Your task to perform on an android device: turn on improve location accuracy Image 0: 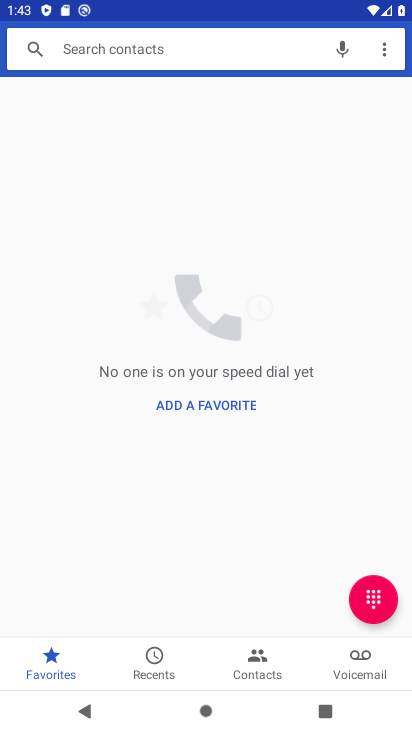
Step 0: press home button
Your task to perform on an android device: turn on improve location accuracy Image 1: 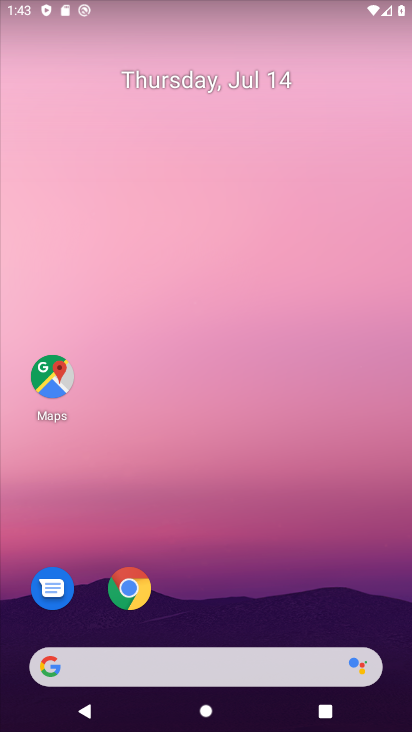
Step 1: drag from (221, 554) to (265, 147)
Your task to perform on an android device: turn on improve location accuracy Image 2: 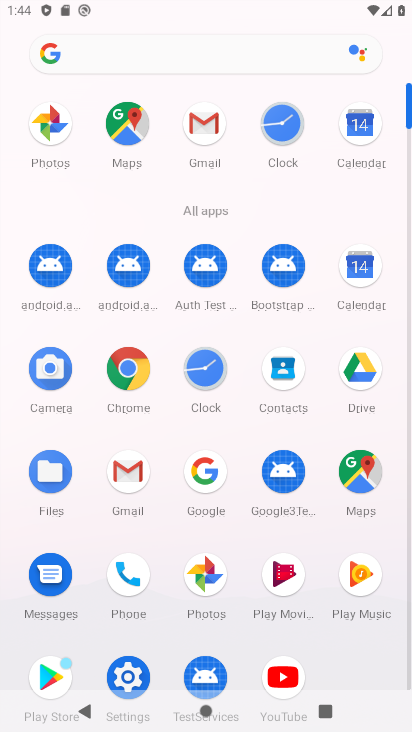
Step 2: click (132, 664)
Your task to perform on an android device: turn on improve location accuracy Image 3: 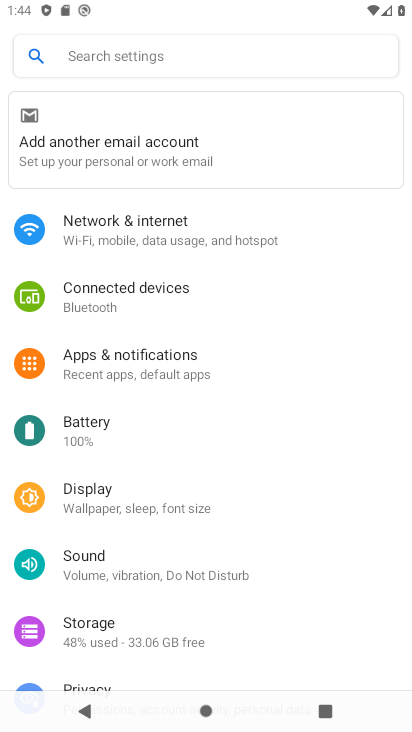
Step 3: drag from (147, 631) to (146, 390)
Your task to perform on an android device: turn on improve location accuracy Image 4: 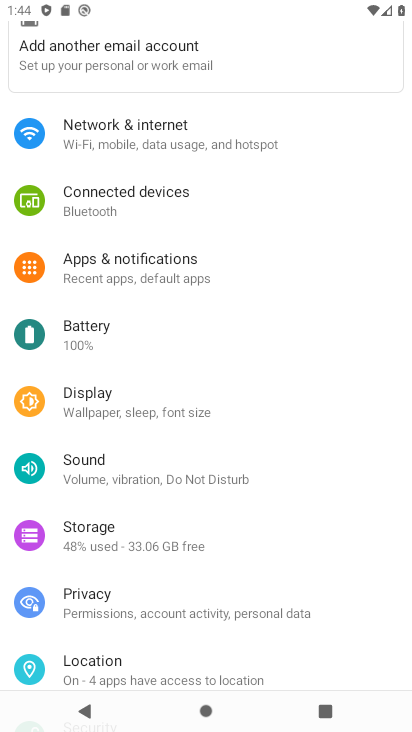
Step 4: click (135, 674)
Your task to perform on an android device: turn on improve location accuracy Image 5: 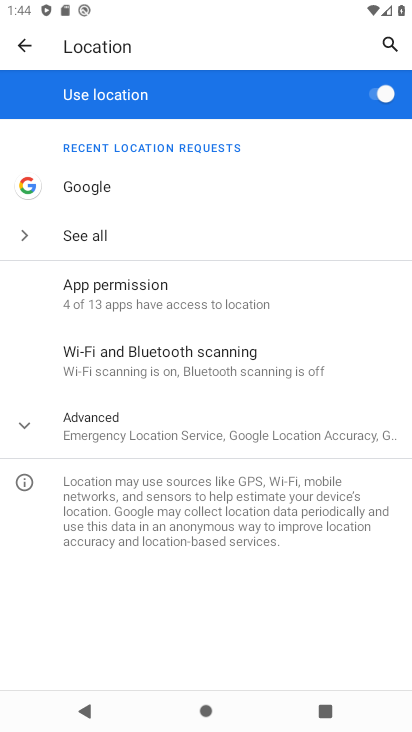
Step 5: click (210, 420)
Your task to perform on an android device: turn on improve location accuracy Image 6: 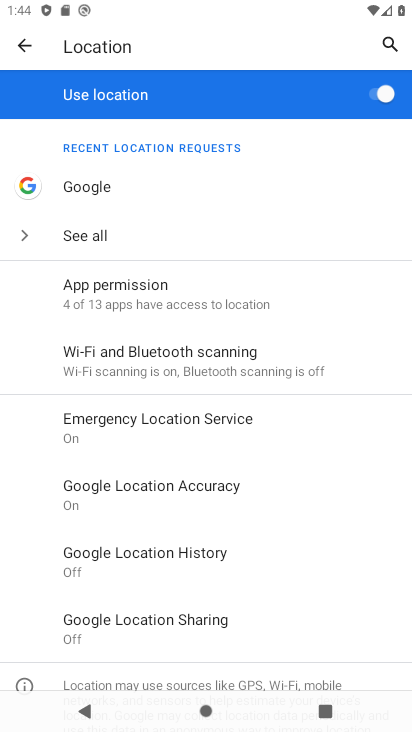
Step 6: click (204, 496)
Your task to perform on an android device: turn on improve location accuracy Image 7: 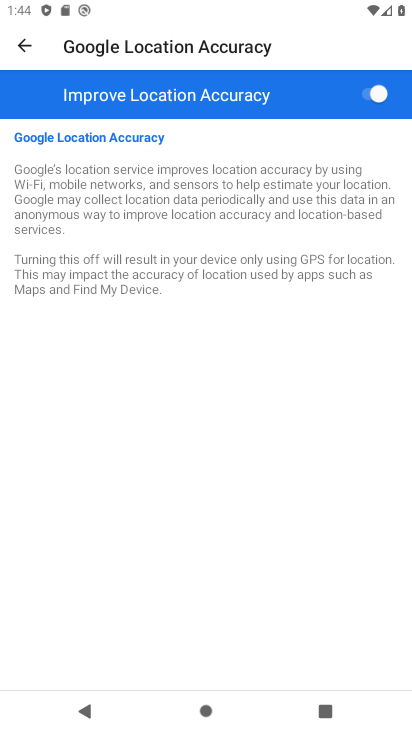
Step 7: task complete